Your task to perform on an android device: Go to accessibility settings Image 0: 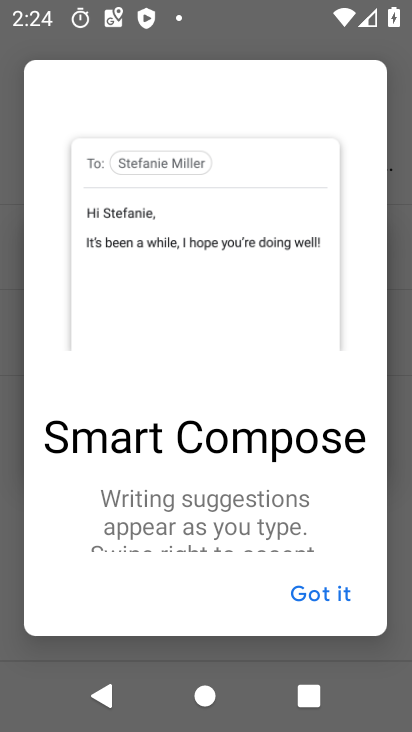
Step 0: press home button
Your task to perform on an android device: Go to accessibility settings Image 1: 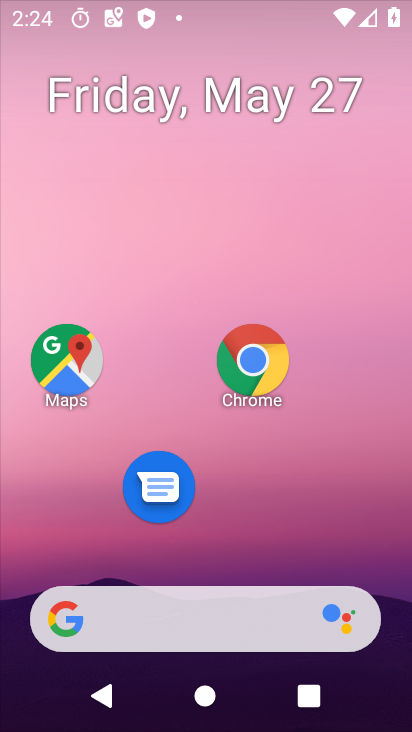
Step 1: drag from (260, 485) to (283, 36)
Your task to perform on an android device: Go to accessibility settings Image 2: 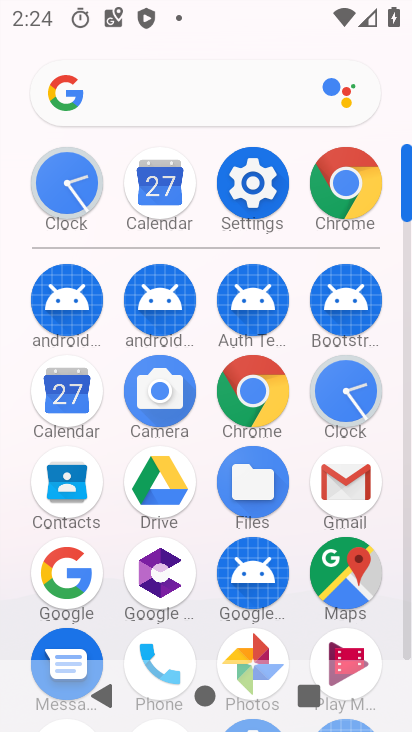
Step 2: click (254, 184)
Your task to perform on an android device: Go to accessibility settings Image 3: 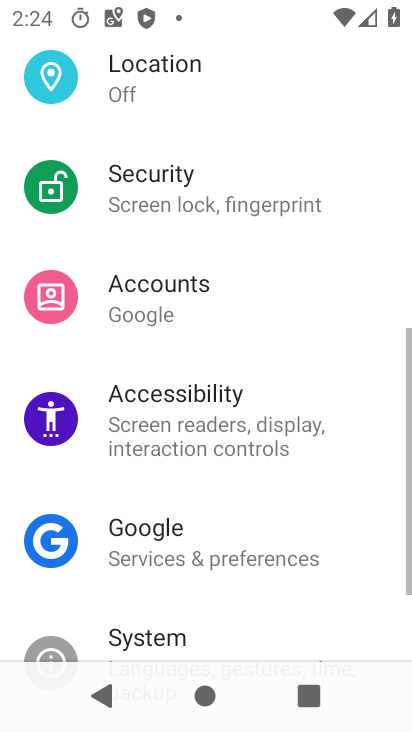
Step 3: drag from (231, 539) to (209, 407)
Your task to perform on an android device: Go to accessibility settings Image 4: 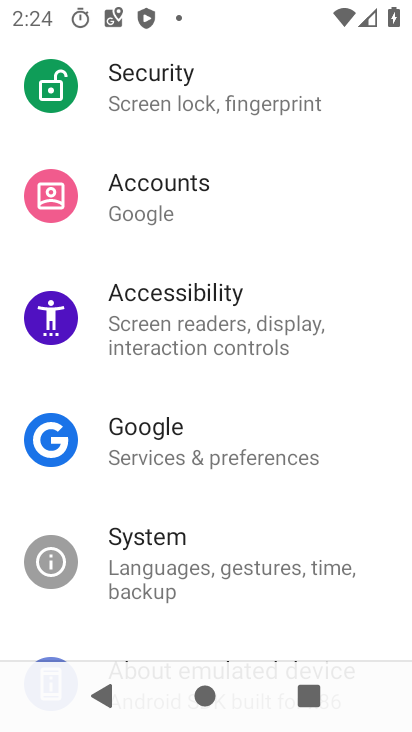
Step 4: click (197, 345)
Your task to perform on an android device: Go to accessibility settings Image 5: 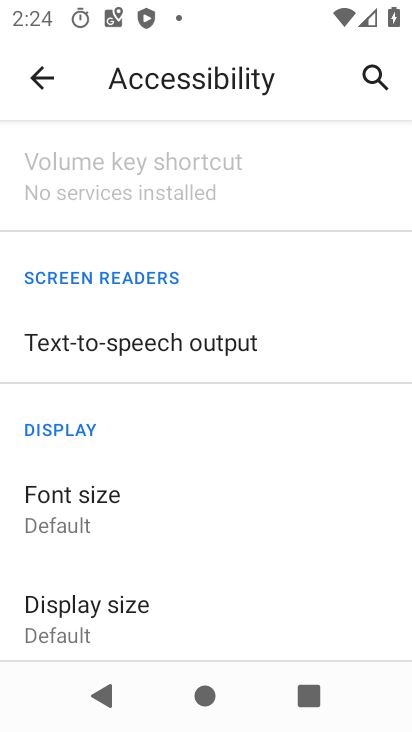
Step 5: task complete